Your task to perform on an android device: open a new tab in the chrome app Image 0: 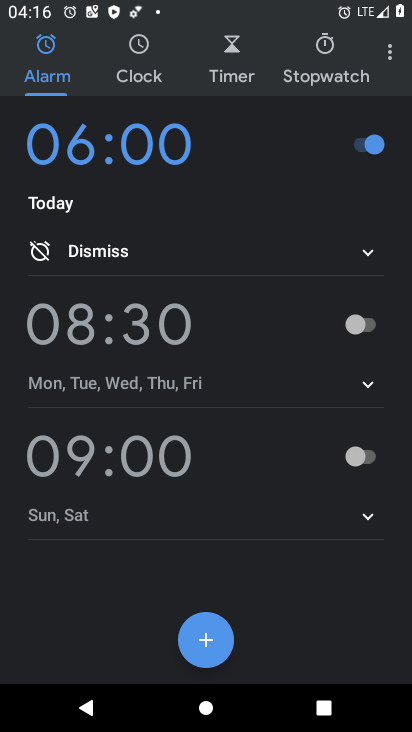
Step 0: press home button
Your task to perform on an android device: open a new tab in the chrome app Image 1: 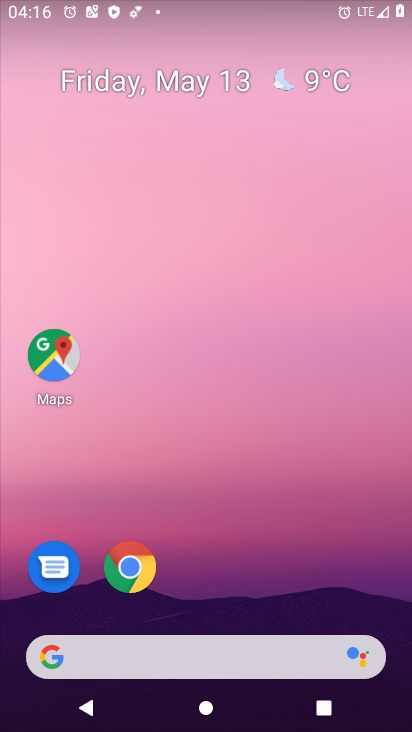
Step 1: click (138, 575)
Your task to perform on an android device: open a new tab in the chrome app Image 2: 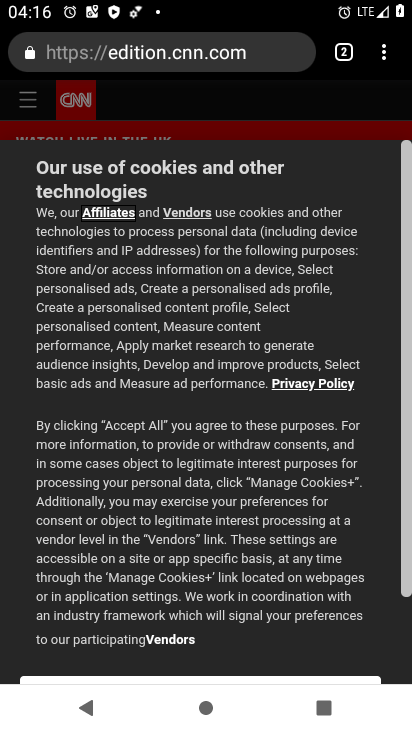
Step 2: click (382, 54)
Your task to perform on an android device: open a new tab in the chrome app Image 3: 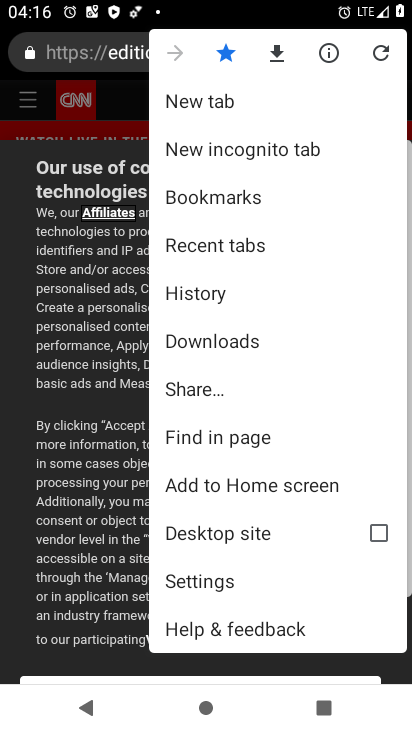
Step 3: click (188, 106)
Your task to perform on an android device: open a new tab in the chrome app Image 4: 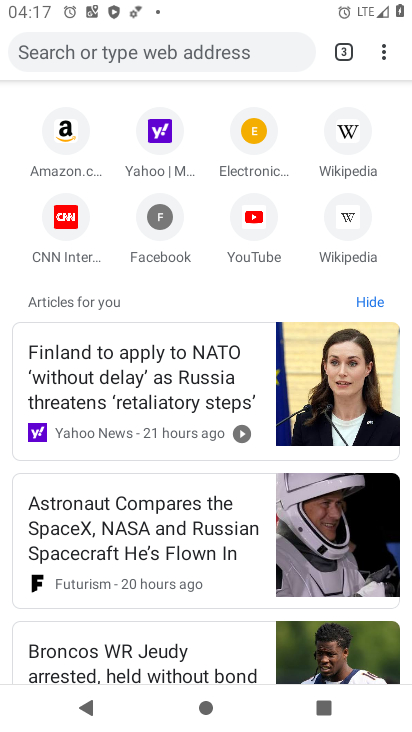
Step 4: task complete